Your task to perform on an android device: turn on the 12-hour format for clock Image 0: 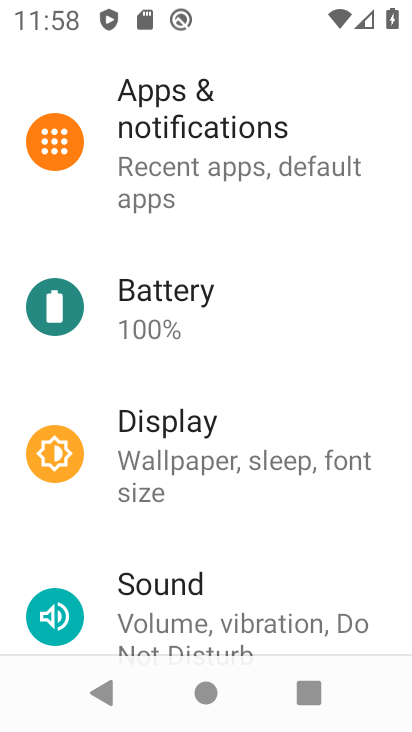
Step 0: press home button
Your task to perform on an android device: turn on the 12-hour format for clock Image 1: 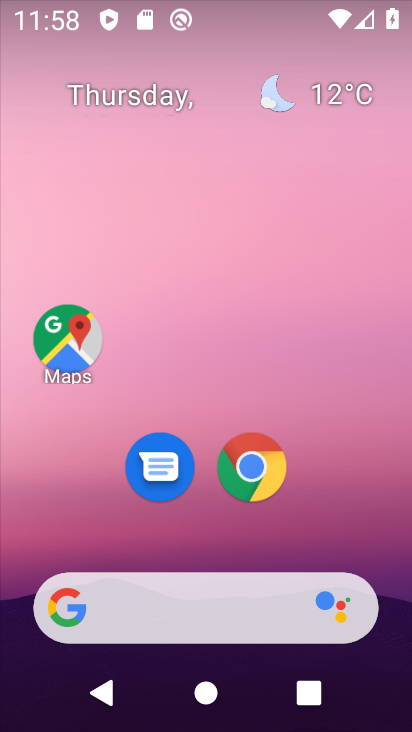
Step 1: drag from (373, 459) to (377, 138)
Your task to perform on an android device: turn on the 12-hour format for clock Image 2: 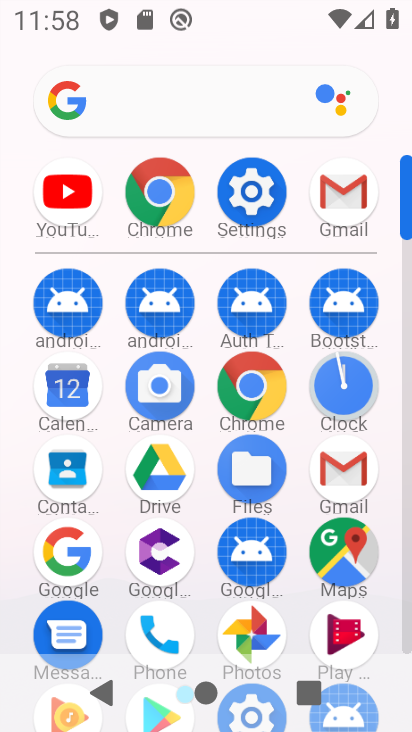
Step 2: click (354, 386)
Your task to perform on an android device: turn on the 12-hour format for clock Image 3: 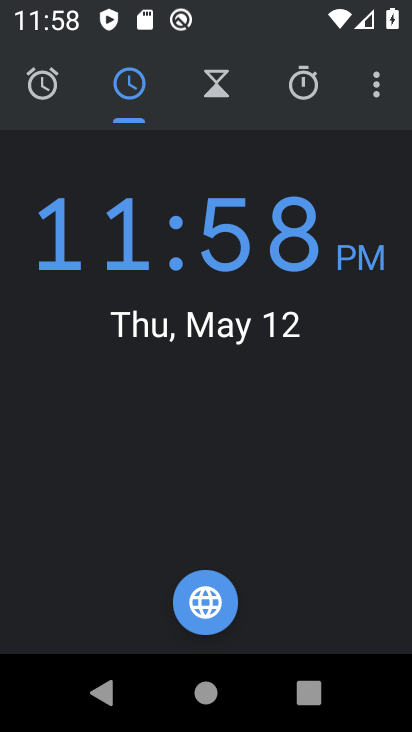
Step 3: click (380, 88)
Your task to perform on an android device: turn on the 12-hour format for clock Image 4: 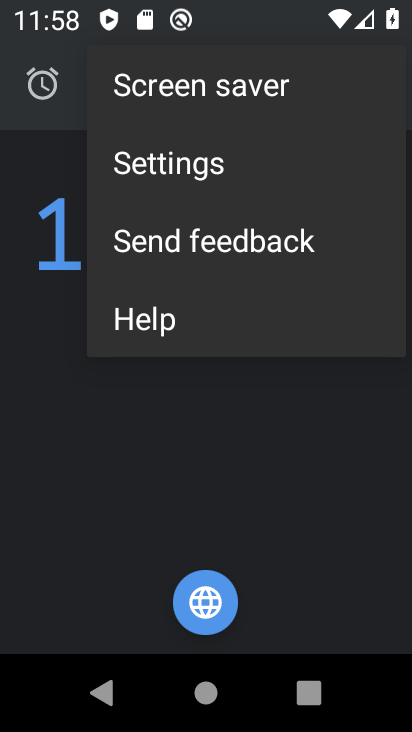
Step 4: click (215, 168)
Your task to perform on an android device: turn on the 12-hour format for clock Image 5: 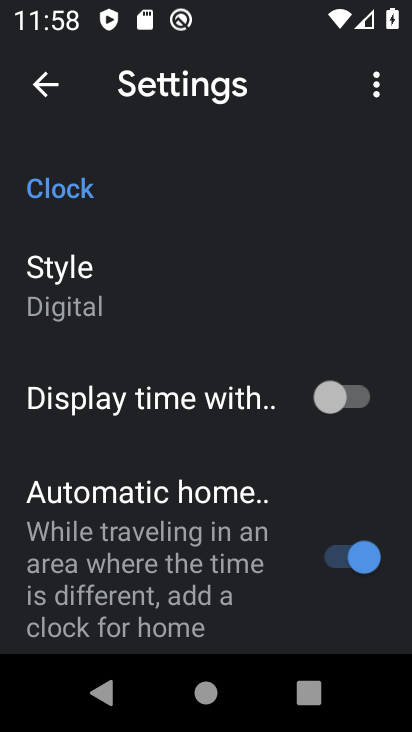
Step 5: drag from (100, 548) to (166, 282)
Your task to perform on an android device: turn on the 12-hour format for clock Image 6: 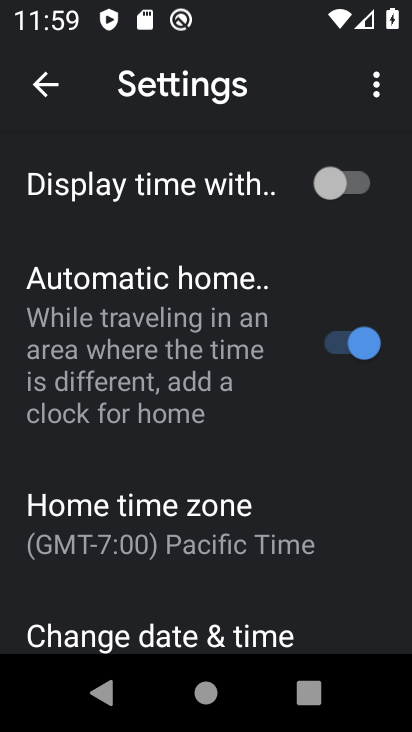
Step 6: drag from (189, 542) to (217, 387)
Your task to perform on an android device: turn on the 12-hour format for clock Image 7: 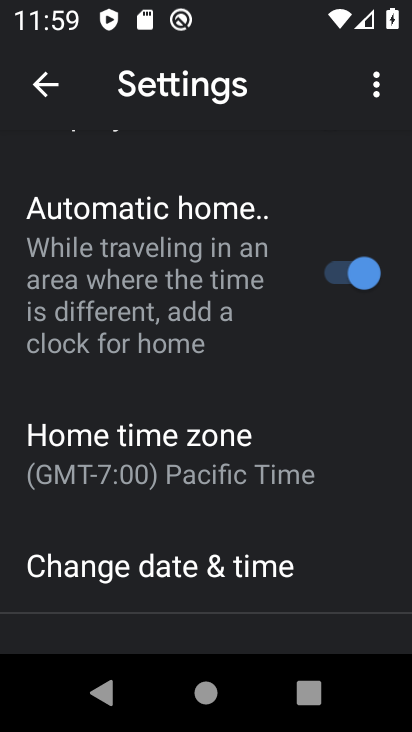
Step 7: click (152, 578)
Your task to perform on an android device: turn on the 12-hour format for clock Image 8: 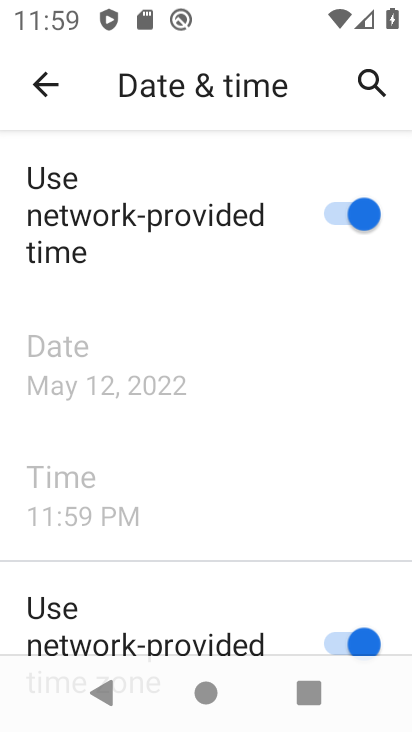
Step 8: task complete